Your task to perform on an android device: Open internet settings Image 0: 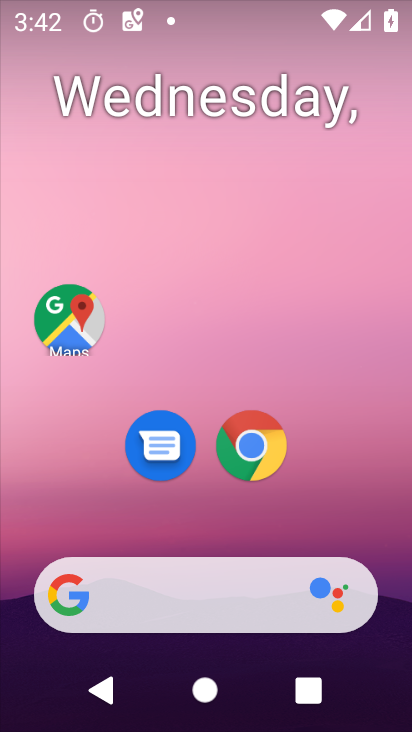
Step 0: drag from (222, 489) to (268, 74)
Your task to perform on an android device: Open internet settings Image 1: 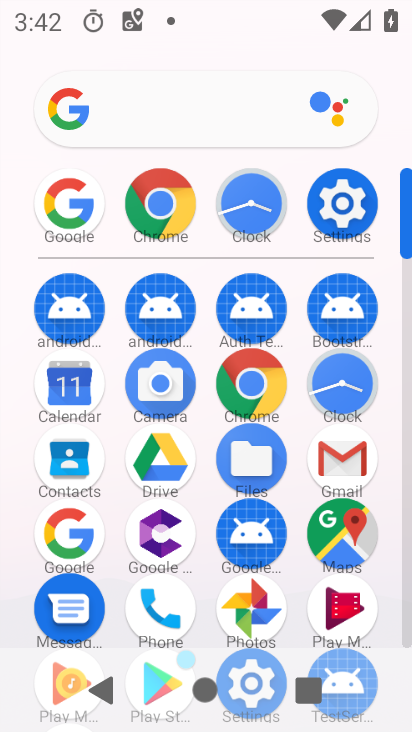
Step 1: click (345, 212)
Your task to perform on an android device: Open internet settings Image 2: 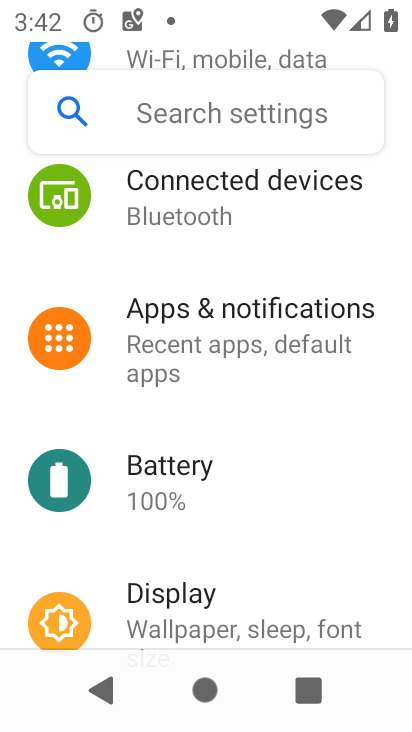
Step 2: drag from (184, 214) to (200, 573)
Your task to perform on an android device: Open internet settings Image 3: 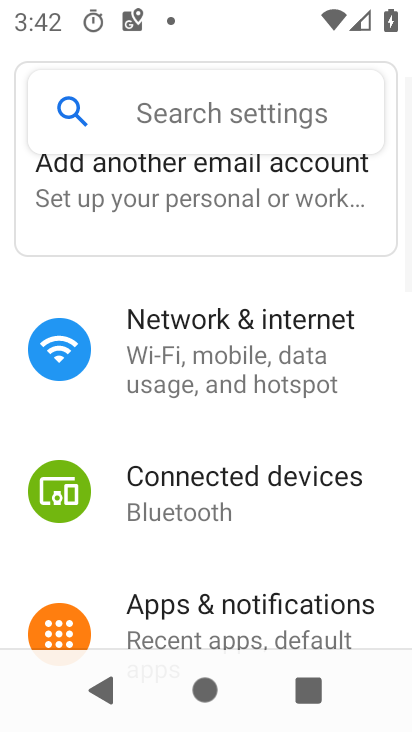
Step 3: click (196, 341)
Your task to perform on an android device: Open internet settings Image 4: 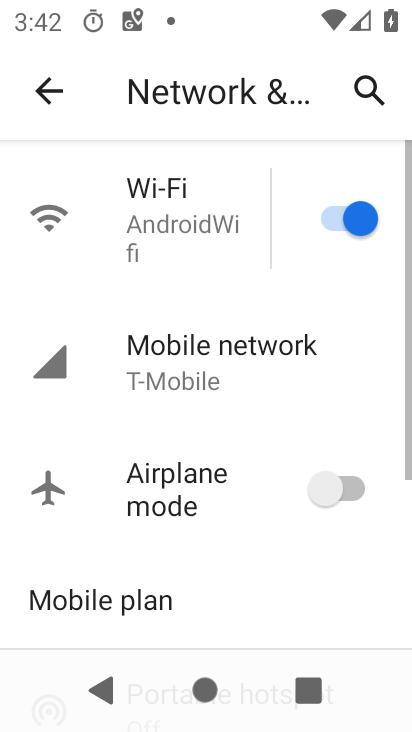
Step 4: click (150, 220)
Your task to perform on an android device: Open internet settings Image 5: 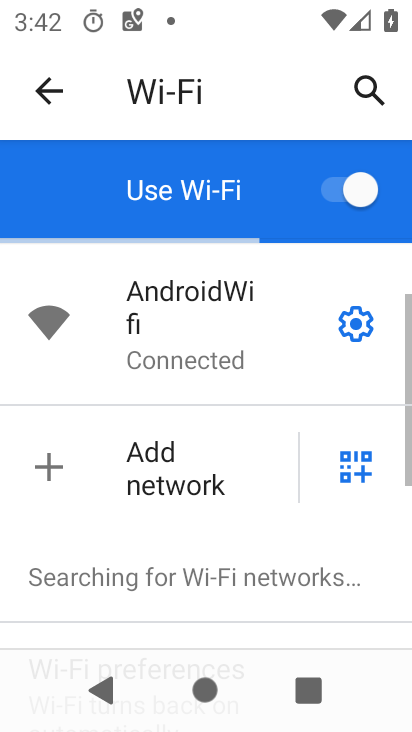
Step 5: click (354, 332)
Your task to perform on an android device: Open internet settings Image 6: 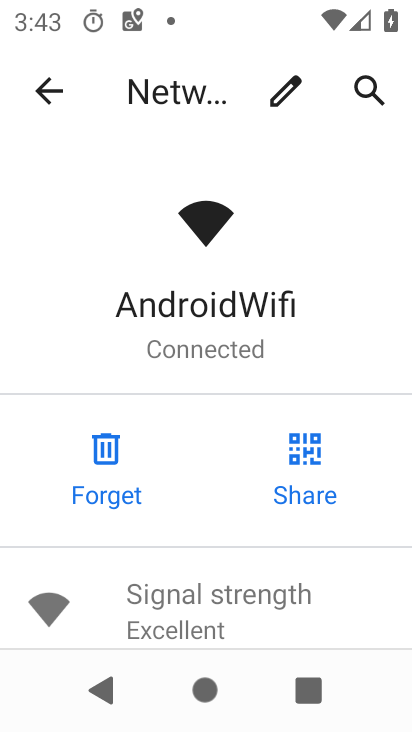
Step 6: task complete